Your task to perform on an android device: Search for hotels in Las Vegas Image 0: 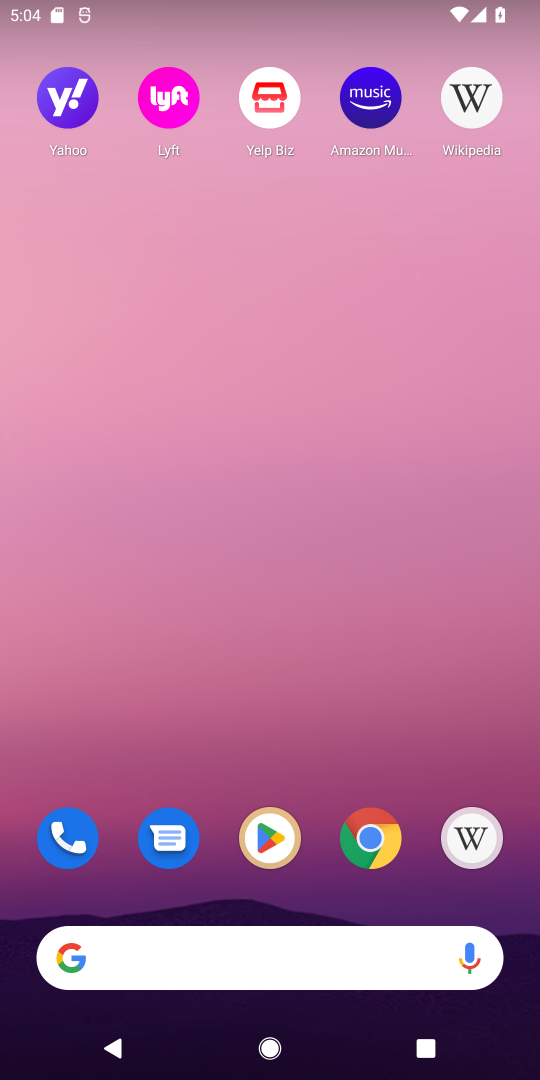
Step 0: click (364, 838)
Your task to perform on an android device: Search for hotels in Las Vegas Image 1: 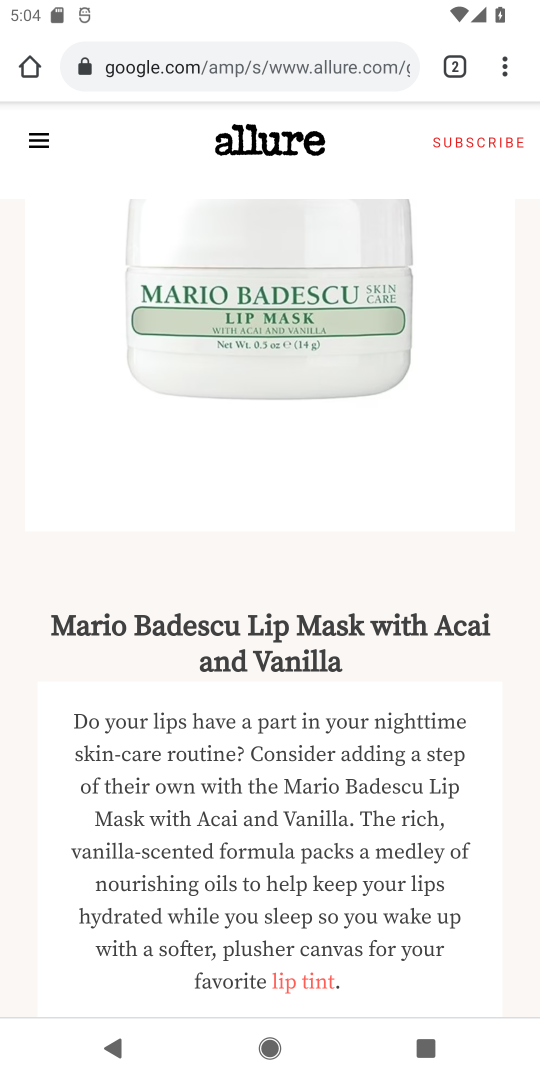
Step 1: click (345, 65)
Your task to perform on an android device: Search for hotels in Las Vegas Image 2: 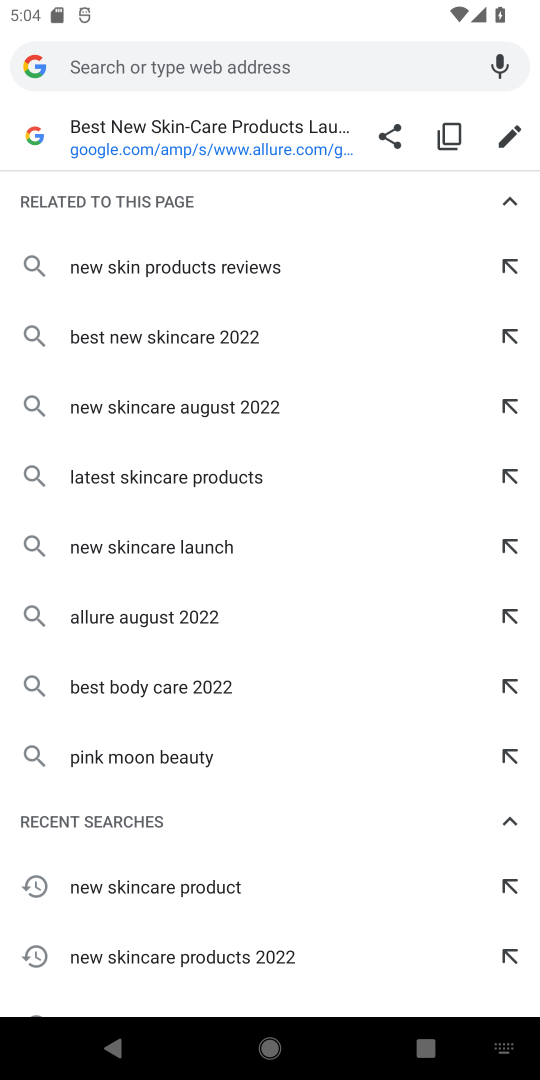
Step 2: type "hotel in las vegas"
Your task to perform on an android device: Search for hotels in Las Vegas Image 3: 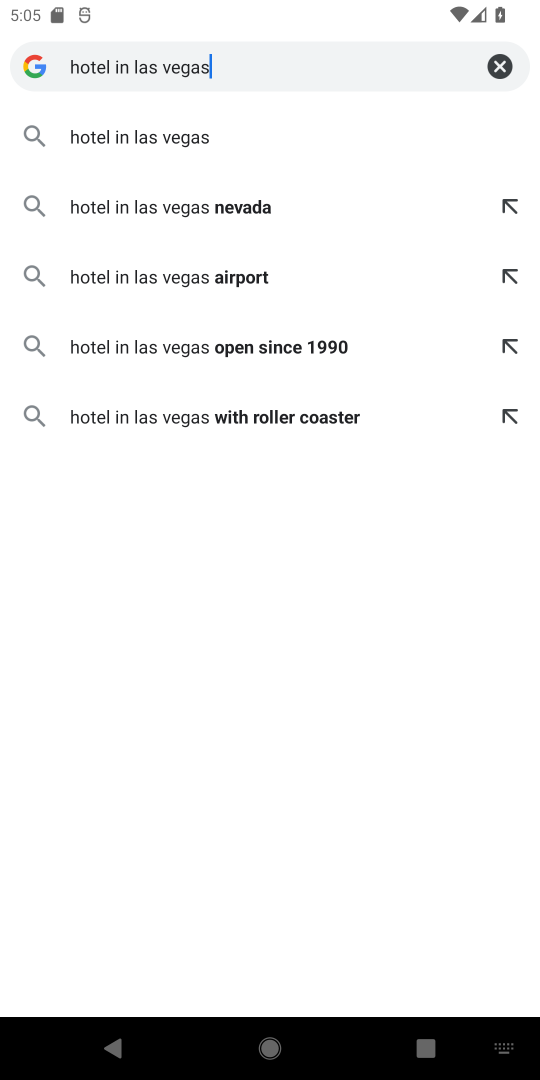
Step 3: click (178, 134)
Your task to perform on an android device: Search for hotels in Las Vegas Image 4: 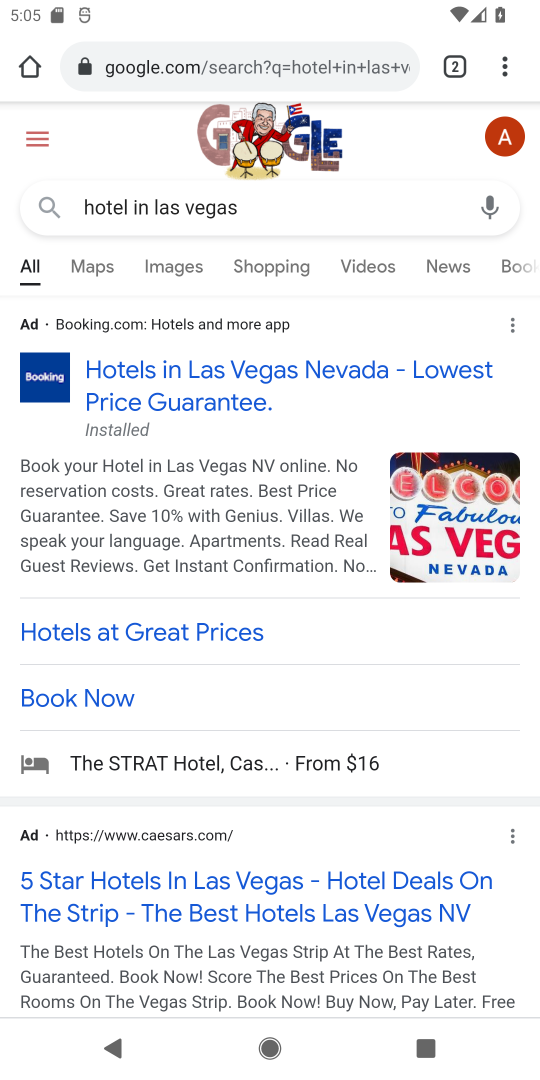
Step 4: click (208, 373)
Your task to perform on an android device: Search for hotels in Las Vegas Image 5: 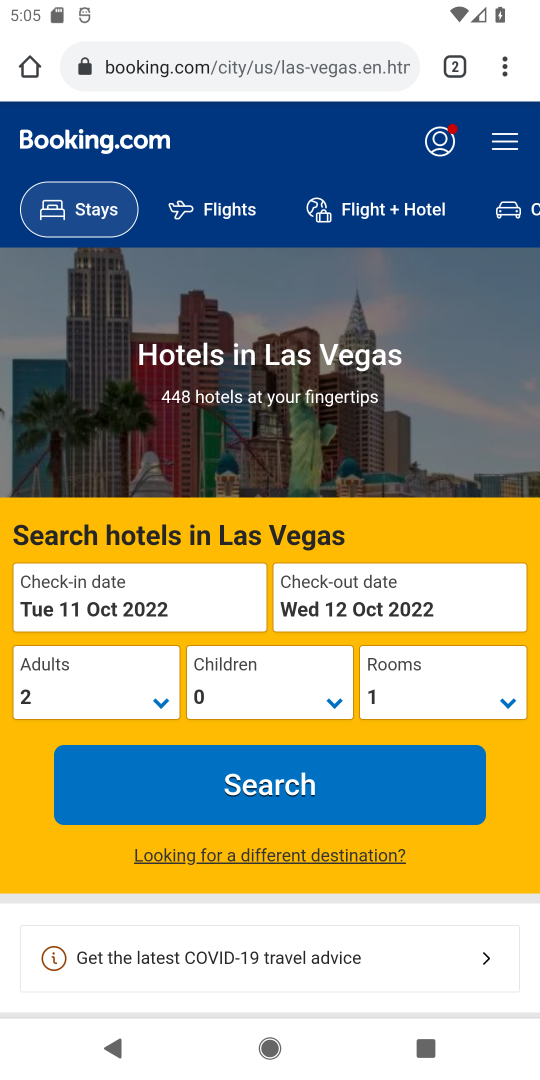
Step 5: click (185, 805)
Your task to perform on an android device: Search for hotels in Las Vegas Image 6: 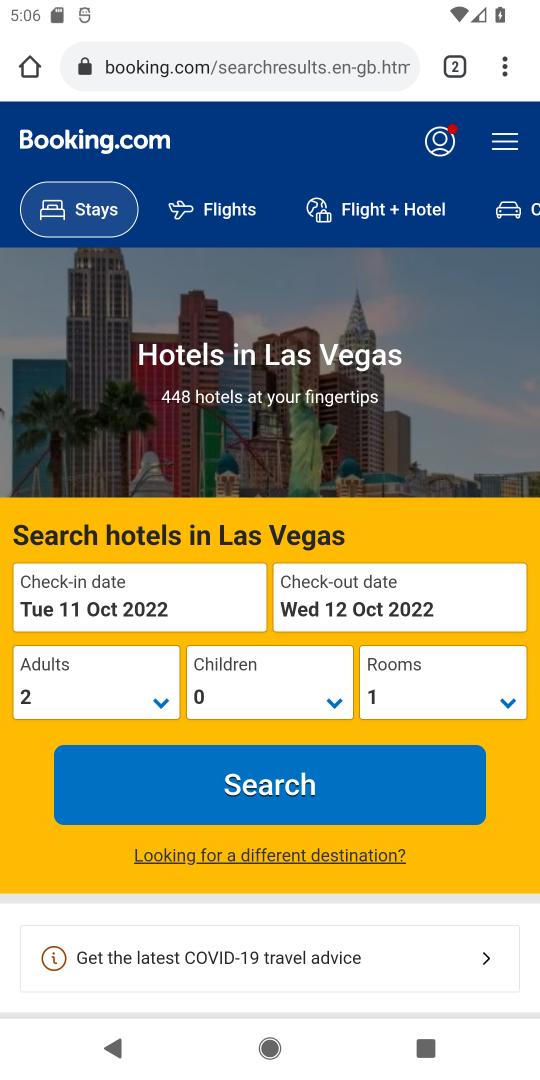
Step 6: click (263, 789)
Your task to perform on an android device: Search for hotels in Las Vegas Image 7: 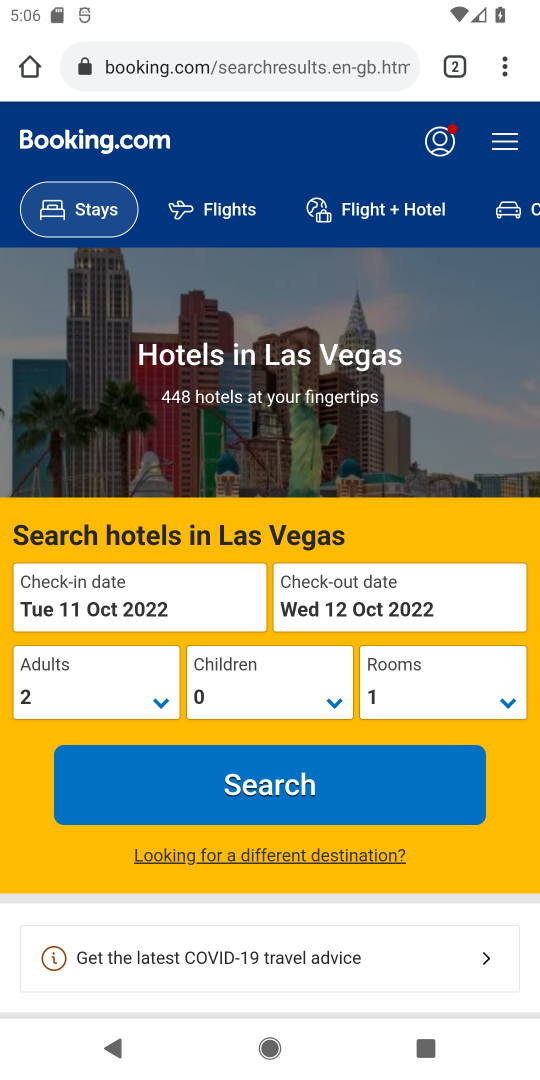
Step 7: click (262, 788)
Your task to perform on an android device: Search for hotels in Las Vegas Image 8: 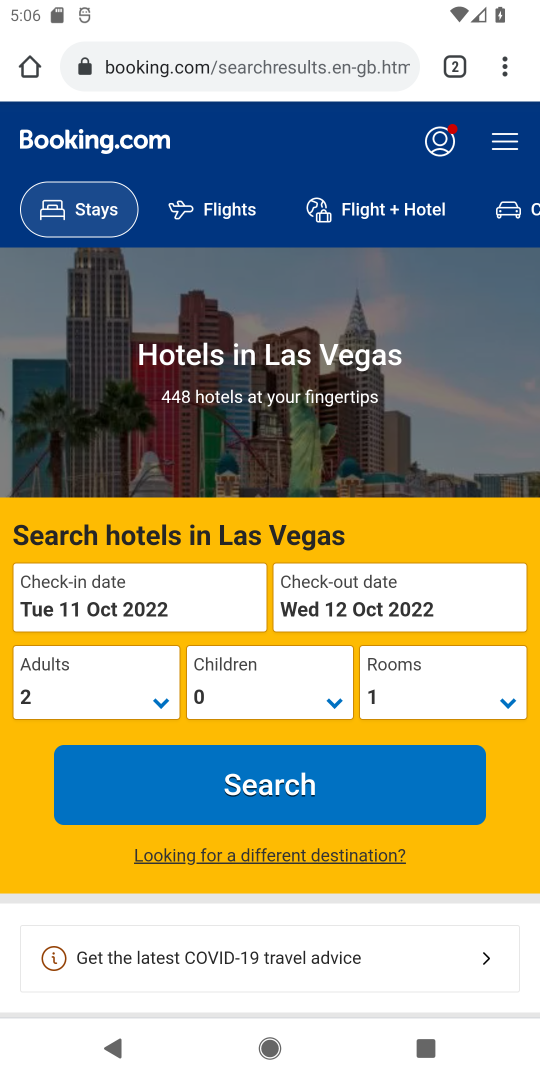
Step 8: click (241, 806)
Your task to perform on an android device: Search for hotels in Las Vegas Image 9: 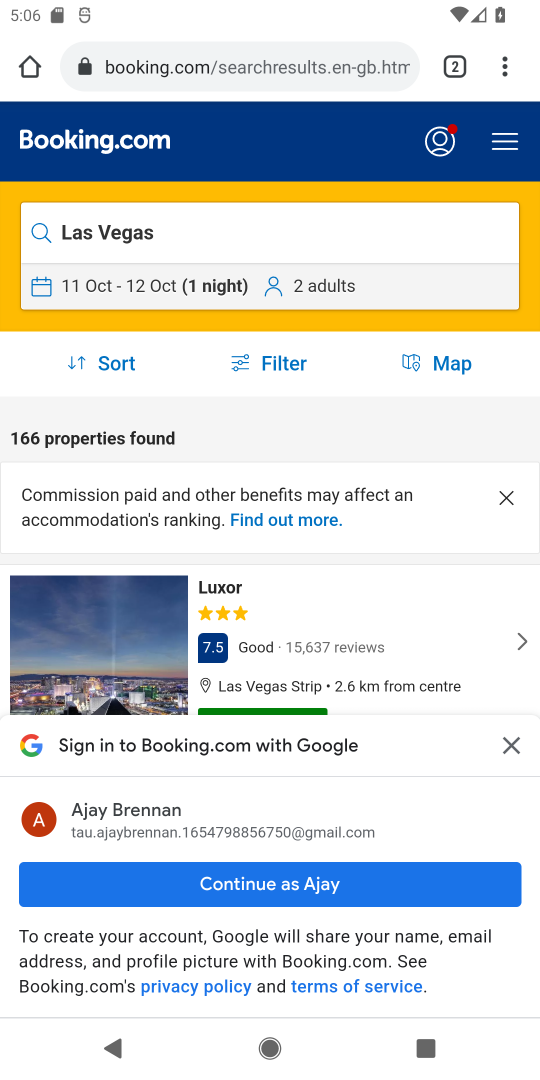
Step 9: click (513, 745)
Your task to perform on an android device: Search for hotels in Las Vegas Image 10: 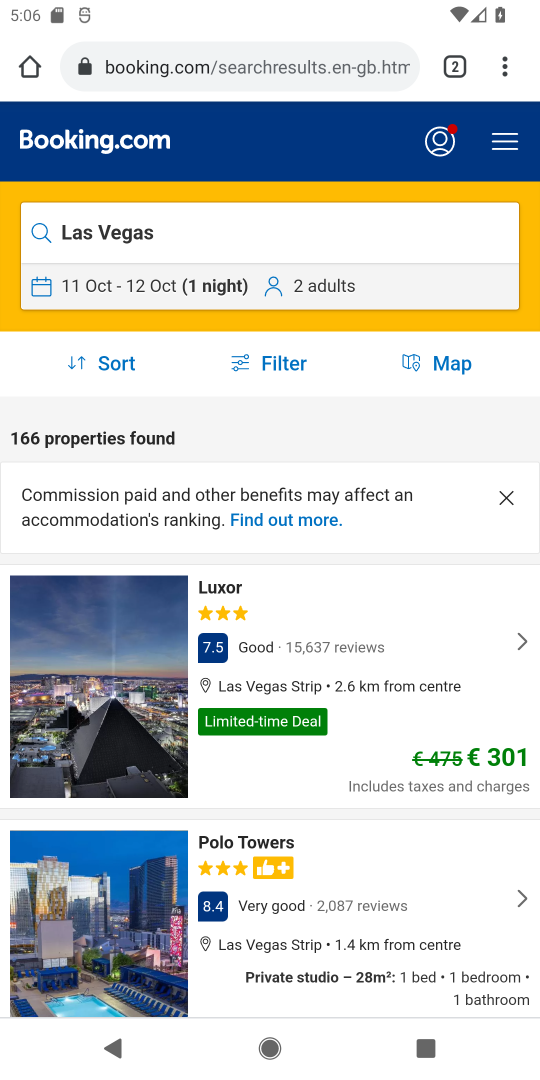
Step 10: drag from (150, 884) to (181, 423)
Your task to perform on an android device: Search for hotels in Las Vegas Image 11: 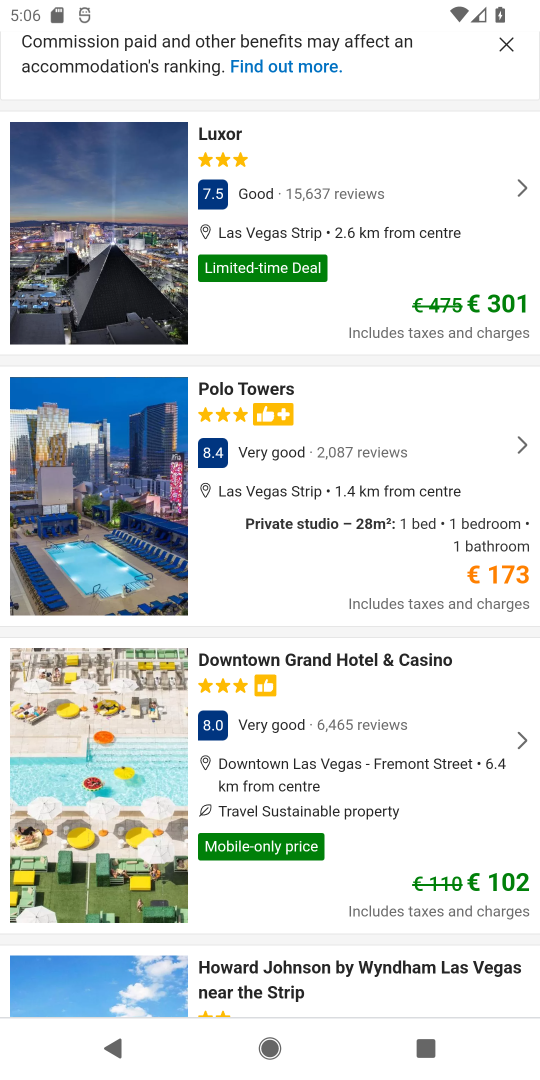
Step 11: drag from (153, 853) to (188, 379)
Your task to perform on an android device: Search for hotels in Las Vegas Image 12: 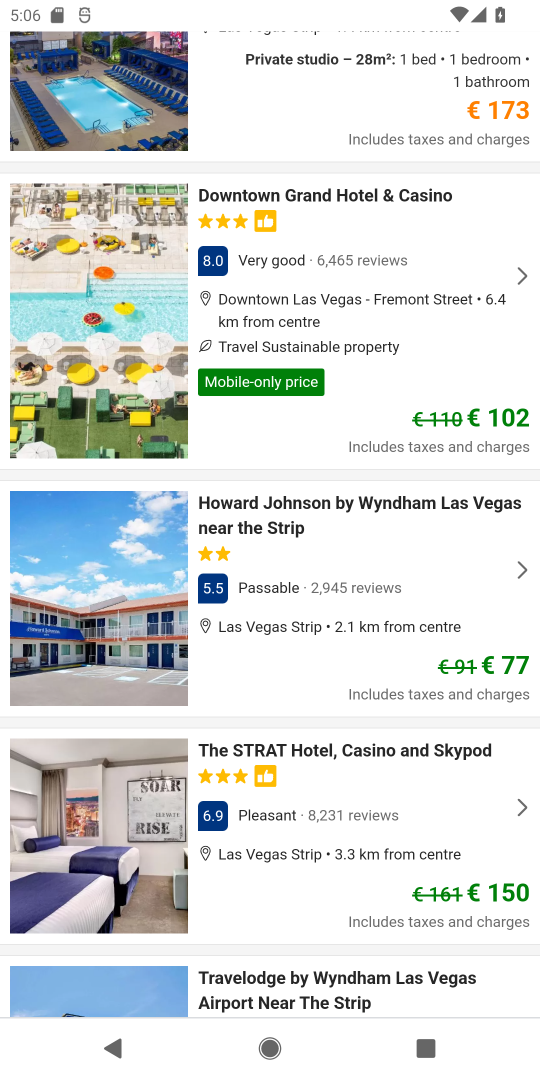
Step 12: drag from (155, 846) to (201, 279)
Your task to perform on an android device: Search for hotels in Las Vegas Image 13: 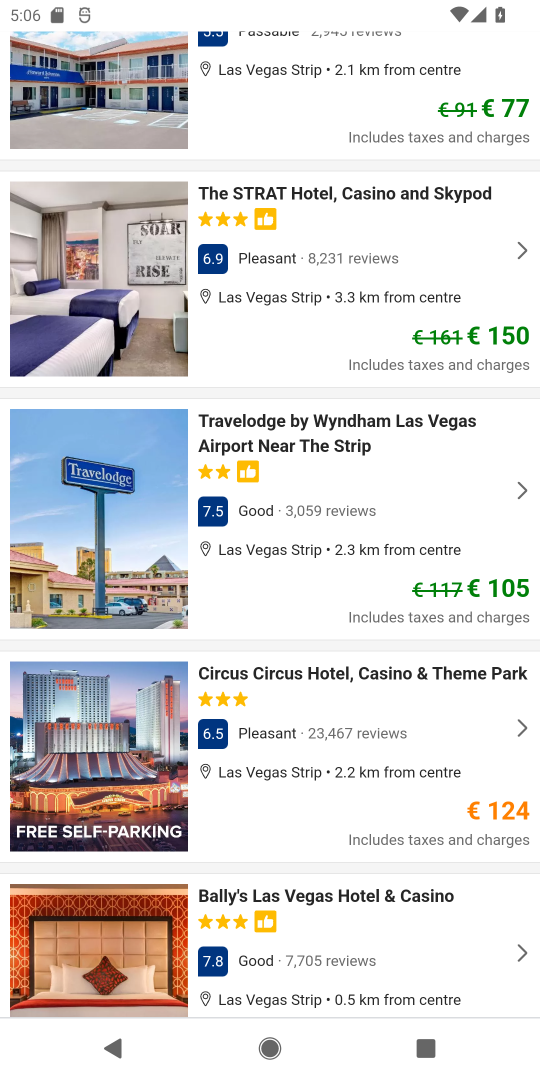
Step 13: drag from (326, 794) to (334, 367)
Your task to perform on an android device: Search for hotels in Las Vegas Image 14: 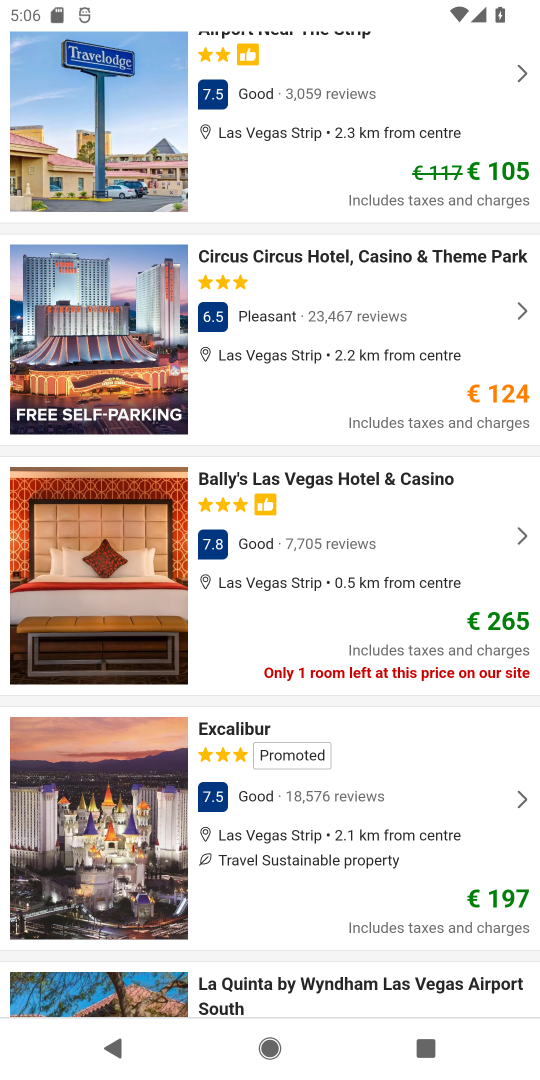
Step 14: drag from (156, 868) to (189, 366)
Your task to perform on an android device: Search for hotels in Las Vegas Image 15: 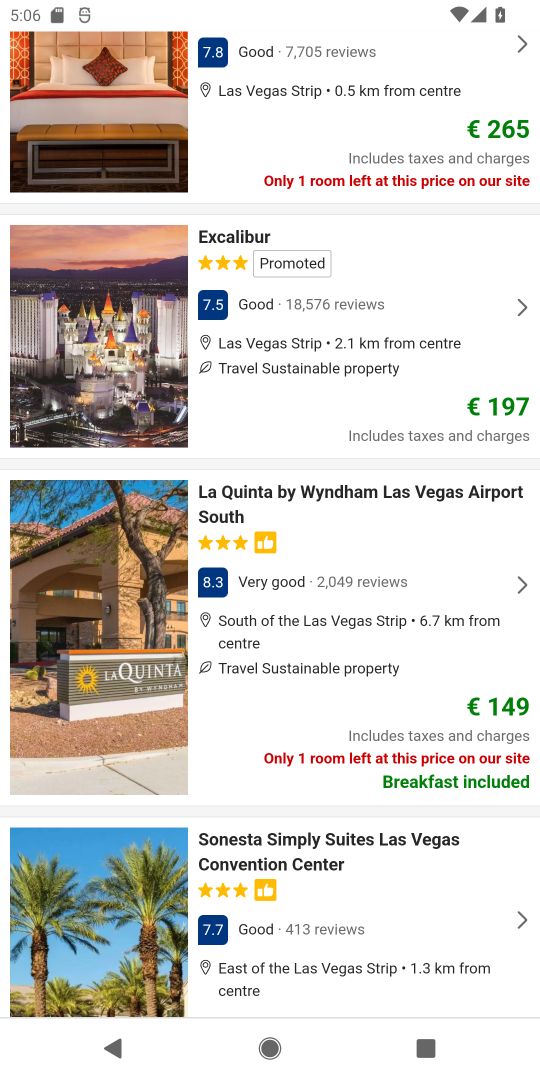
Step 15: drag from (110, 939) to (164, 441)
Your task to perform on an android device: Search for hotels in Las Vegas Image 16: 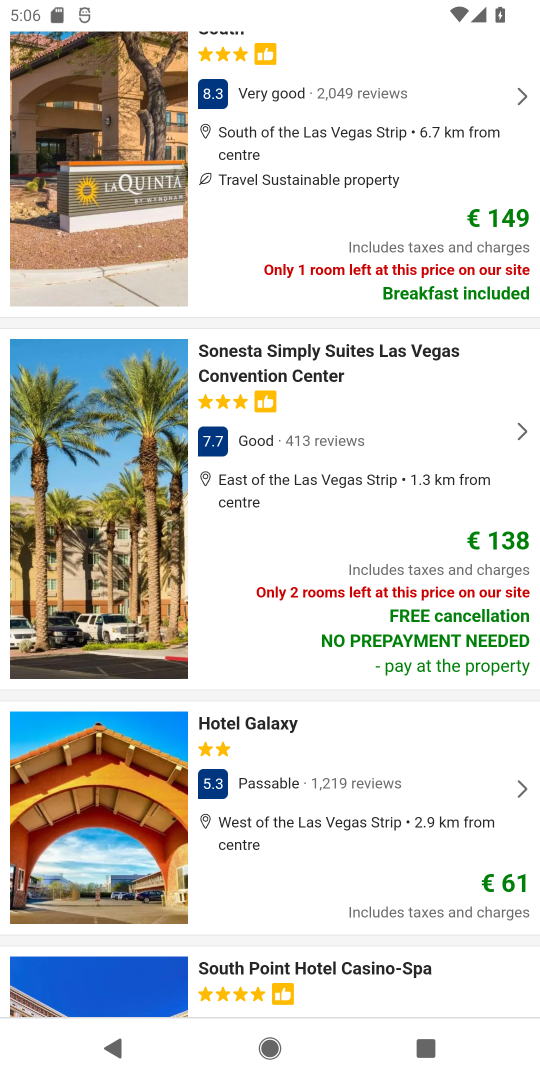
Step 16: drag from (21, 912) to (127, 387)
Your task to perform on an android device: Search for hotels in Las Vegas Image 17: 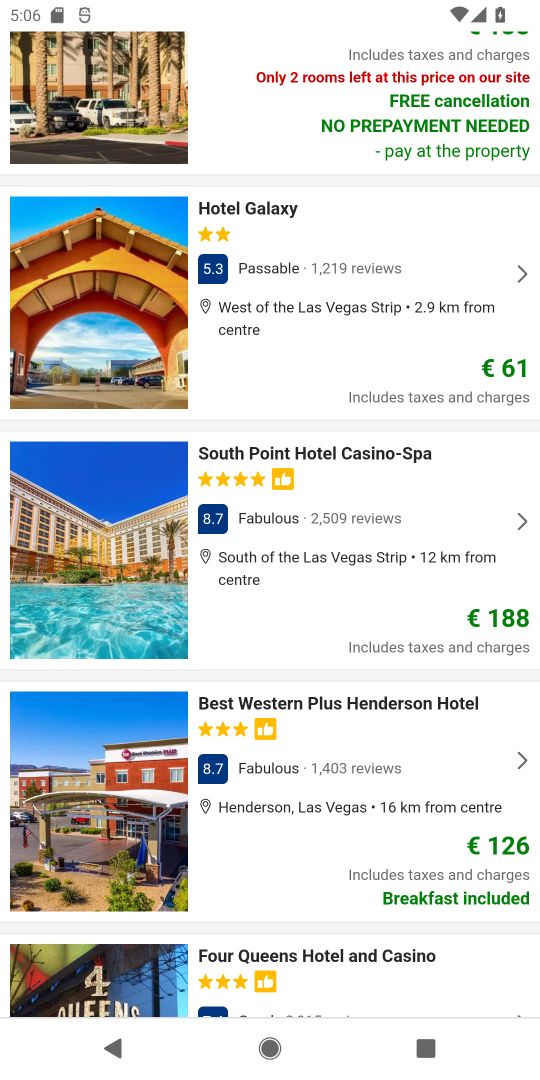
Step 17: drag from (149, 799) to (222, 521)
Your task to perform on an android device: Search for hotels in Las Vegas Image 18: 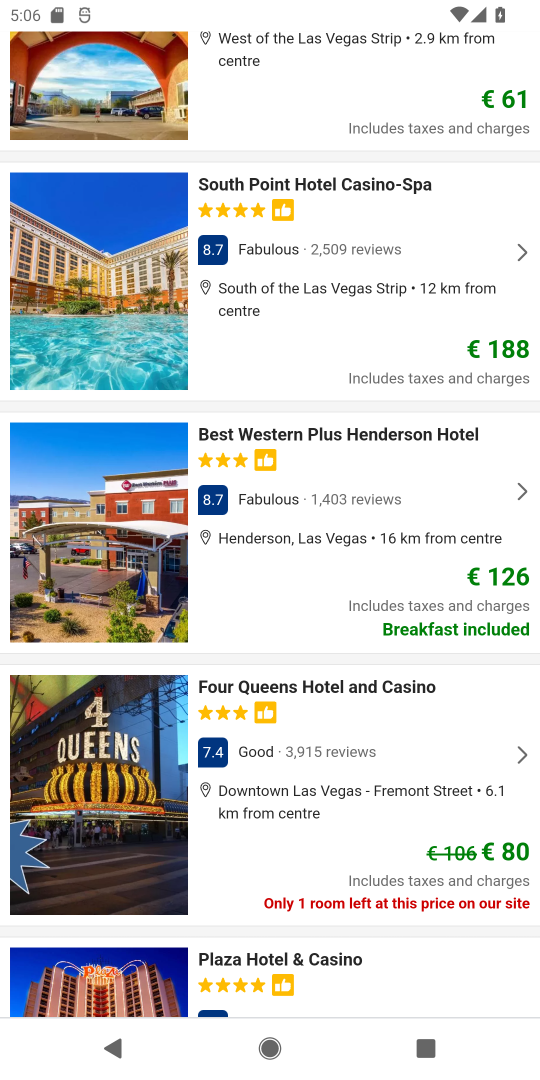
Step 18: drag from (39, 982) to (150, 501)
Your task to perform on an android device: Search for hotels in Las Vegas Image 19: 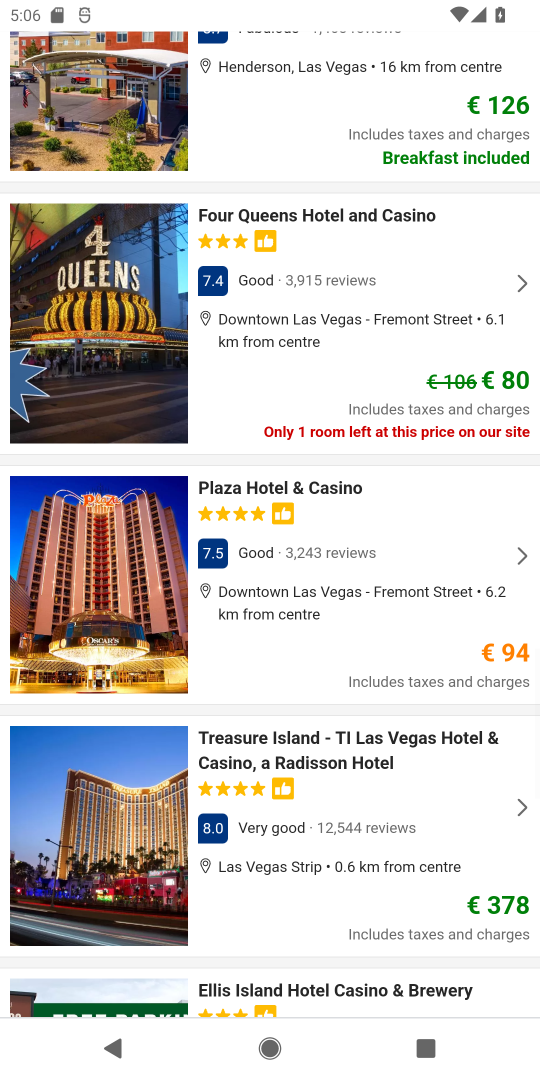
Step 19: drag from (165, 965) to (210, 494)
Your task to perform on an android device: Search for hotels in Las Vegas Image 20: 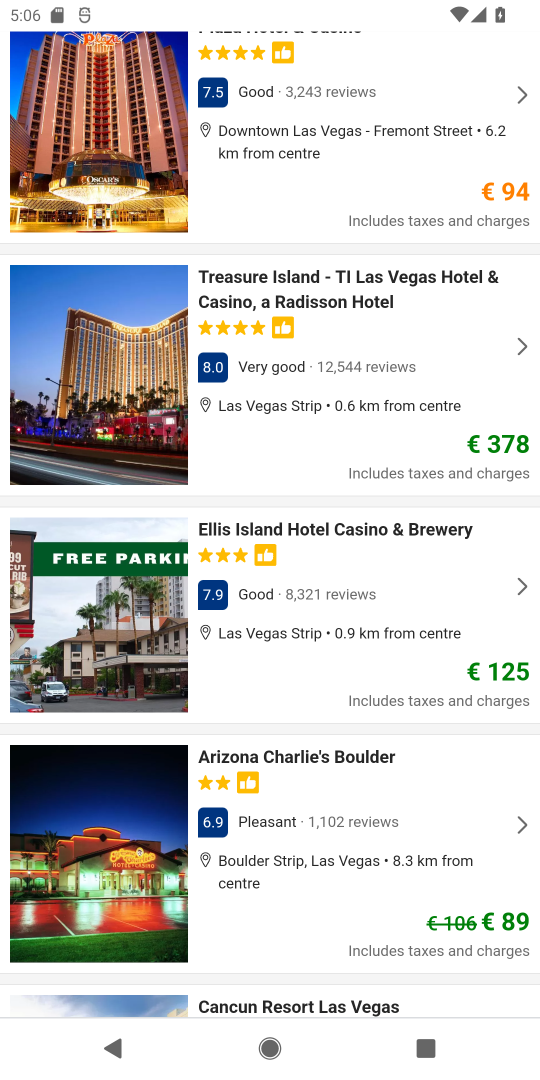
Step 20: drag from (300, 914) to (332, 378)
Your task to perform on an android device: Search for hotels in Las Vegas Image 21: 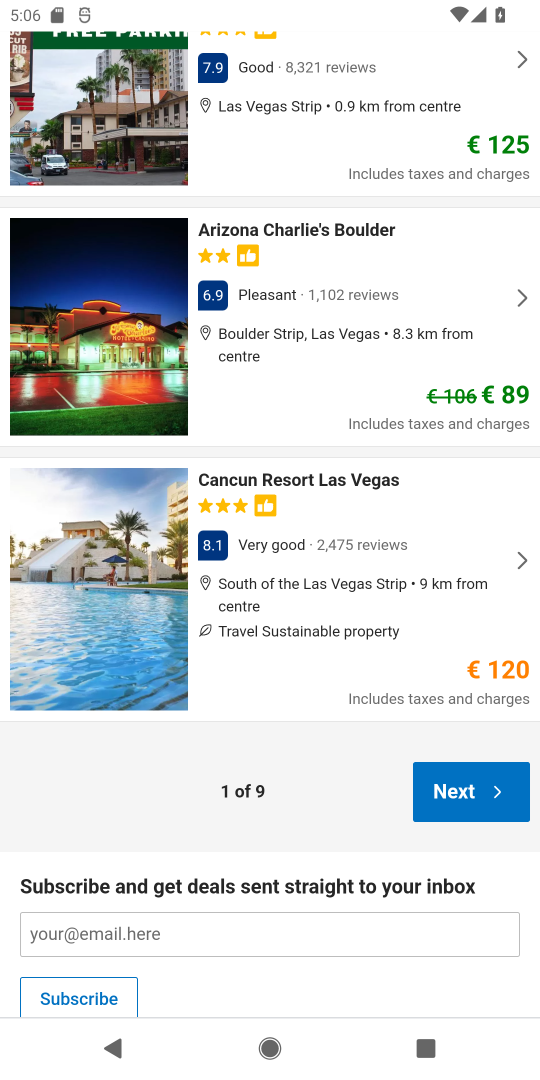
Step 21: drag from (337, 320) to (279, 938)
Your task to perform on an android device: Search for hotels in Las Vegas Image 22: 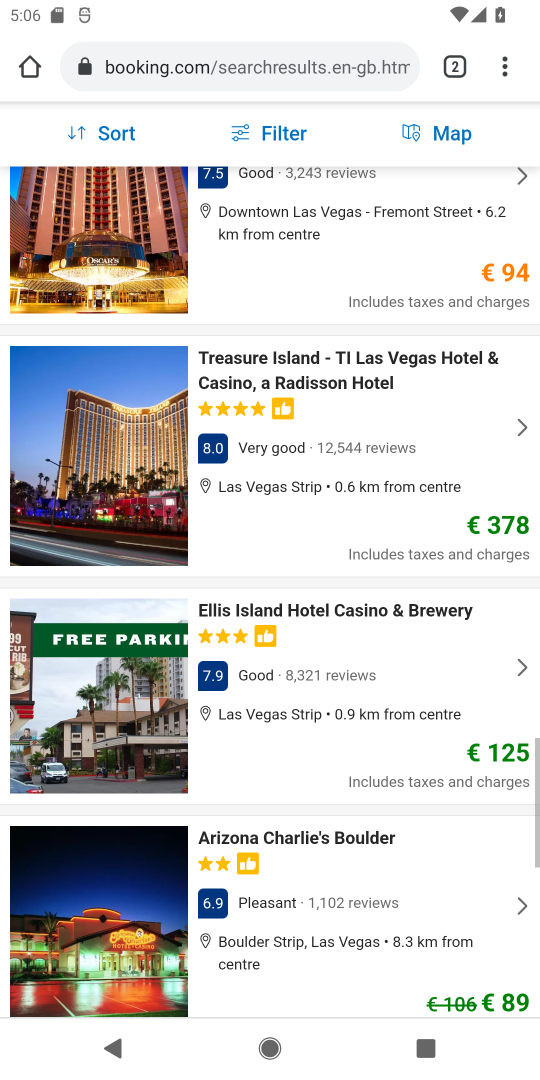
Step 22: drag from (272, 399) to (236, 889)
Your task to perform on an android device: Search for hotels in Las Vegas Image 23: 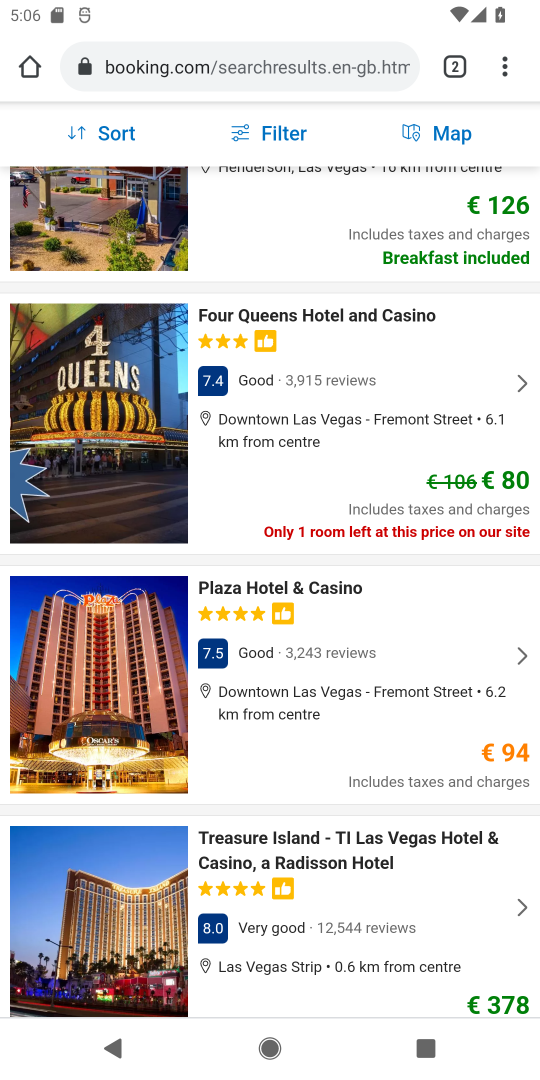
Step 23: click (271, 318)
Your task to perform on an android device: Search for hotels in Las Vegas Image 24: 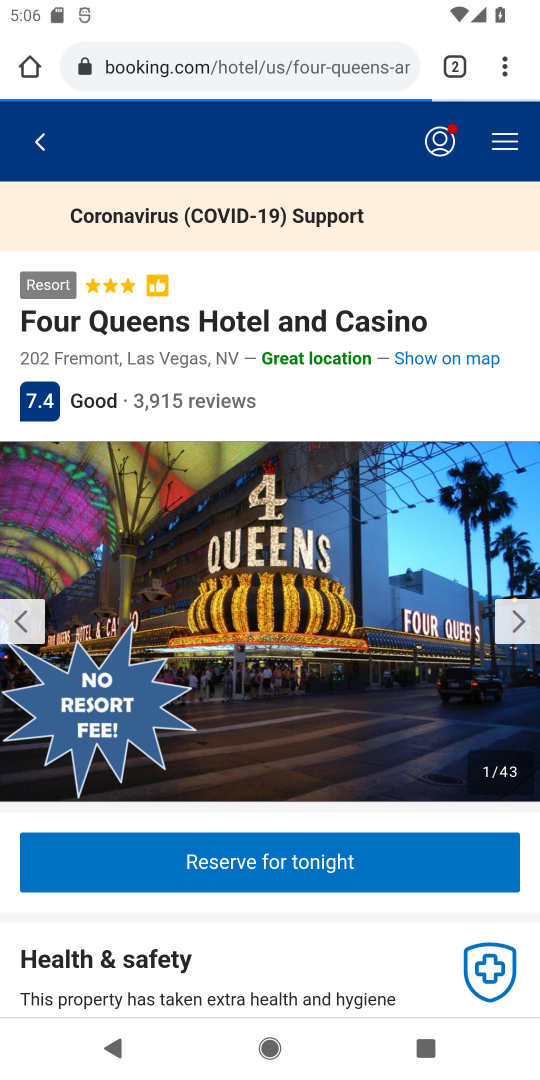
Step 24: task complete